Your task to perform on an android device: Go to display settings Image 0: 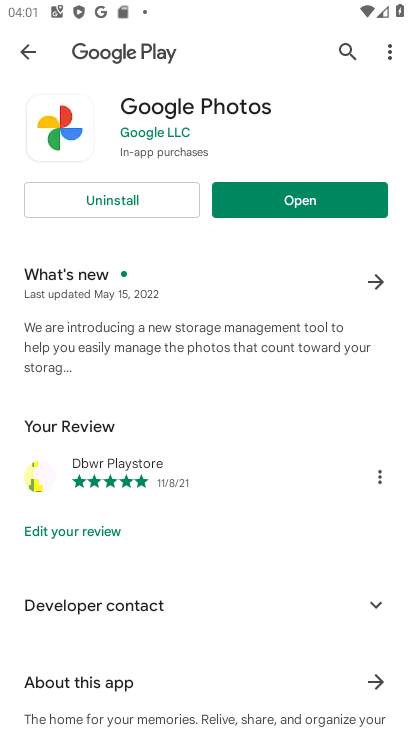
Step 0: press home button
Your task to perform on an android device: Go to display settings Image 1: 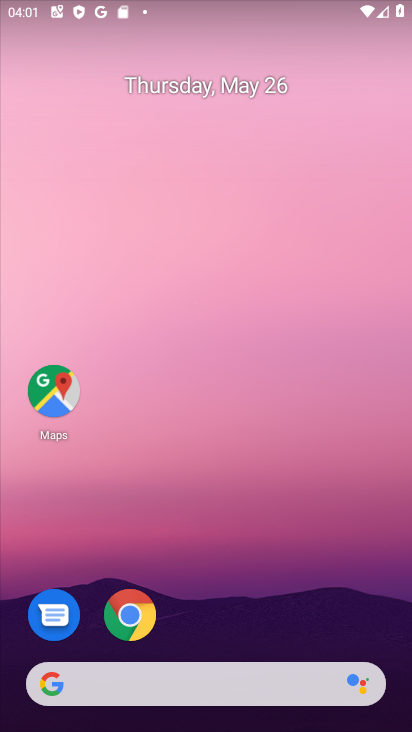
Step 1: drag from (228, 625) to (198, 87)
Your task to perform on an android device: Go to display settings Image 2: 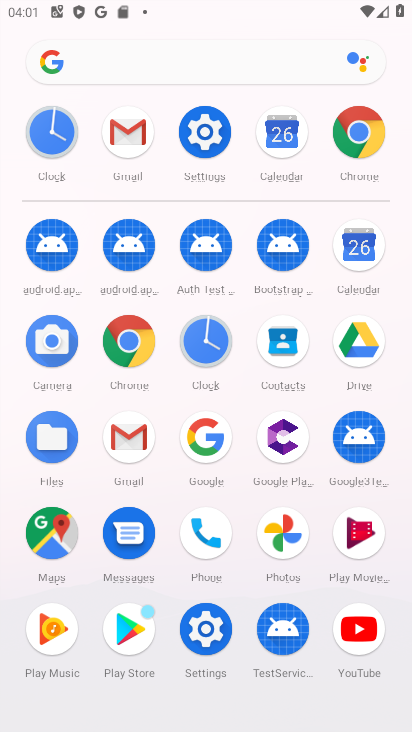
Step 2: click (195, 140)
Your task to perform on an android device: Go to display settings Image 3: 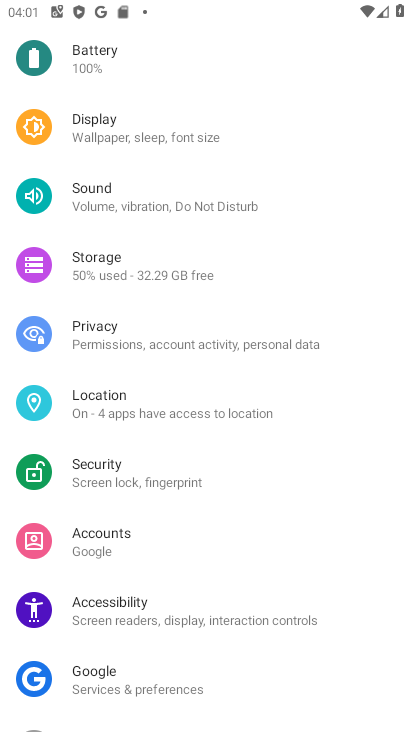
Step 3: click (77, 136)
Your task to perform on an android device: Go to display settings Image 4: 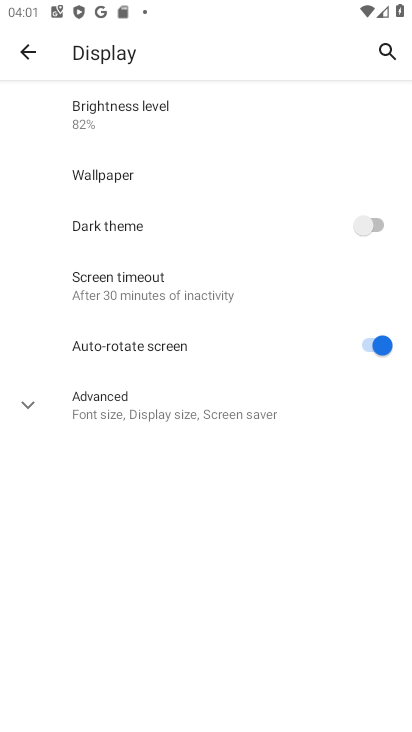
Step 4: task complete